Your task to perform on an android device: Show me the alarms in the clock app Image 0: 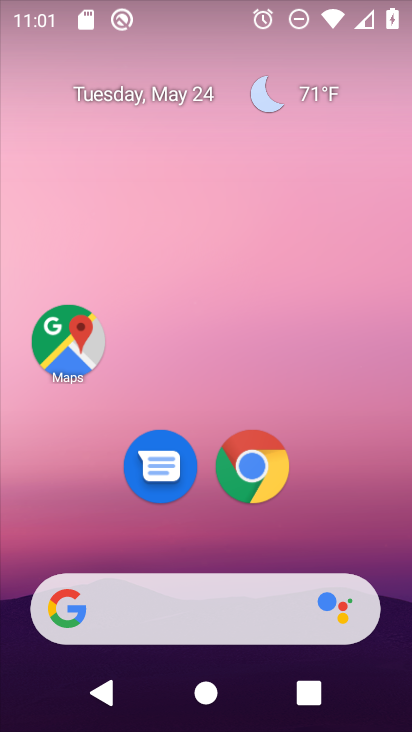
Step 0: drag from (212, 564) to (301, 76)
Your task to perform on an android device: Show me the alarms in the clock app Image 1: 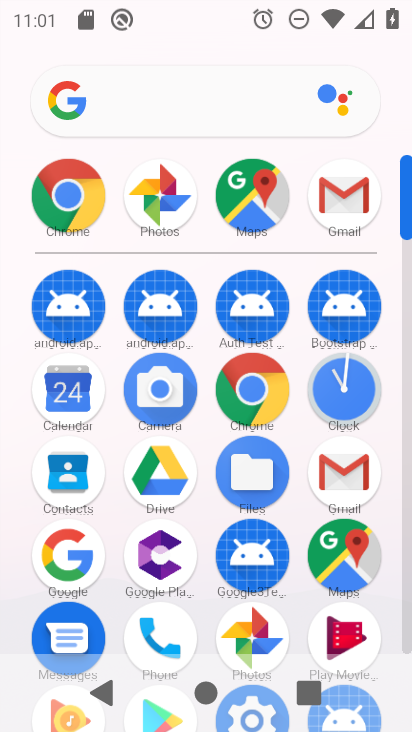
Step 1: click (247, 380)
Your task to perform on an android device: Show me the alarms in the clock app Image 2: 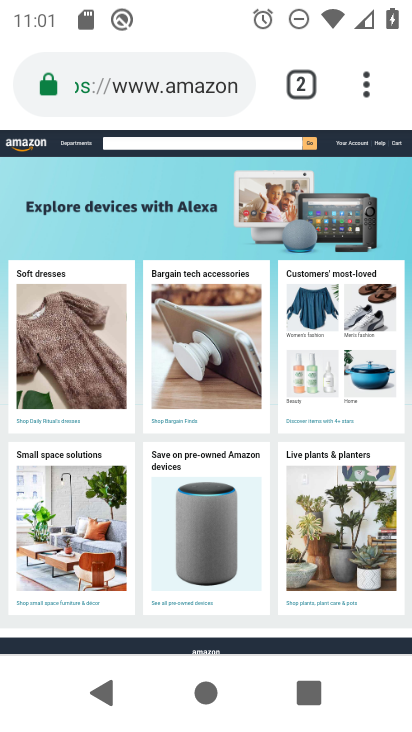
Step 2: press home button
Your task to perform on an android device: Show me the alarms in the clock app Image 3: 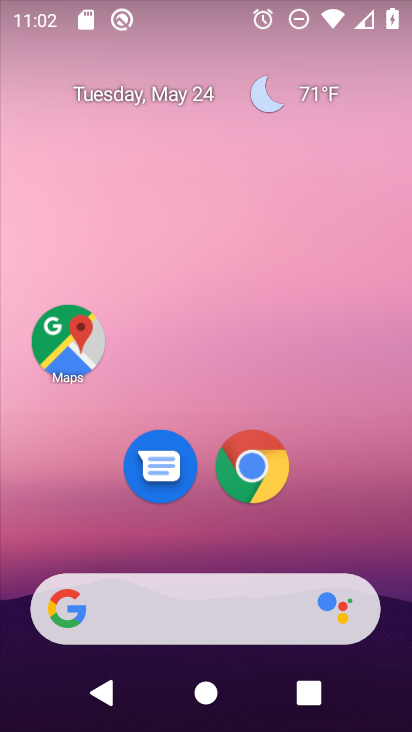
Step 3: click (252, 460)
Your task to perform on an android device: Show me the alarms in the clock app Image 4: 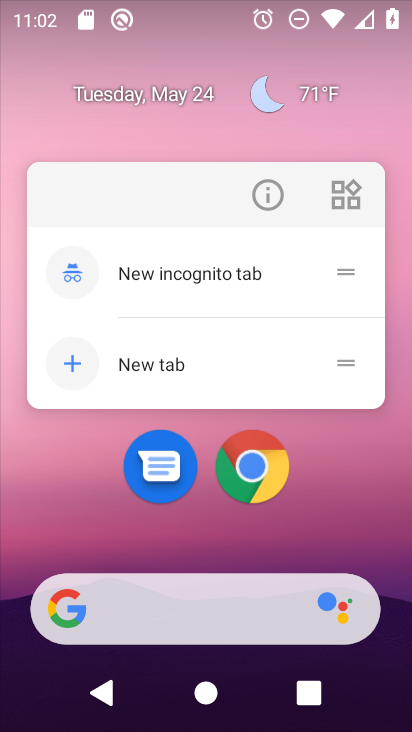
Step 4: click (256, 463)
Your task to perform on an android device: Show me the alarms in the clock app Image 5: 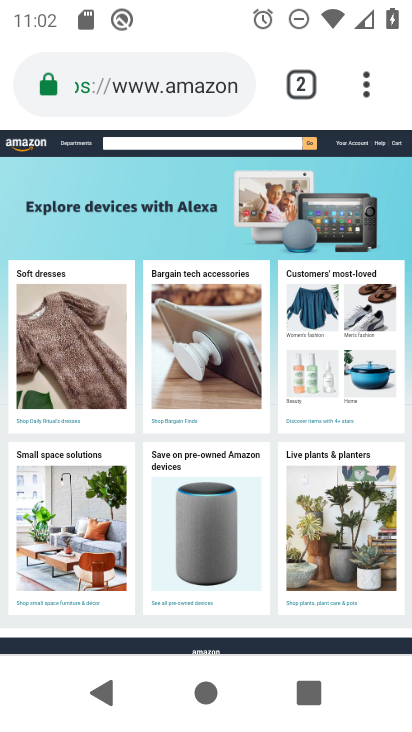
Step 5: click (374, 96)
Your task to perform on an android device: Show me the alarms in the clock app Image 6: 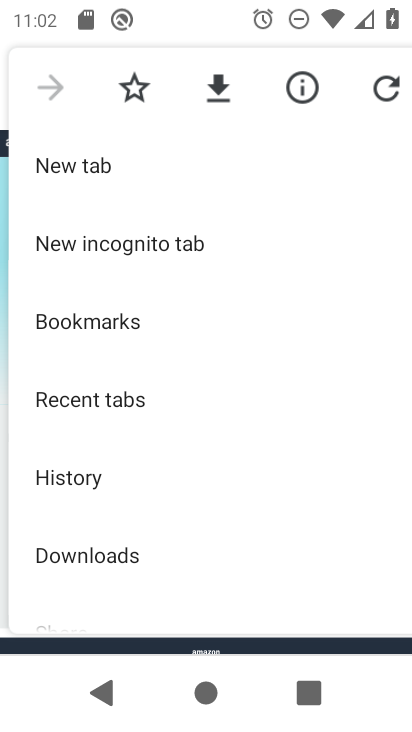
Step 6: drag from (137, 490) to (219, 213)
Your task to perform on an android device: Show me the alarms in the clock app Image 7: 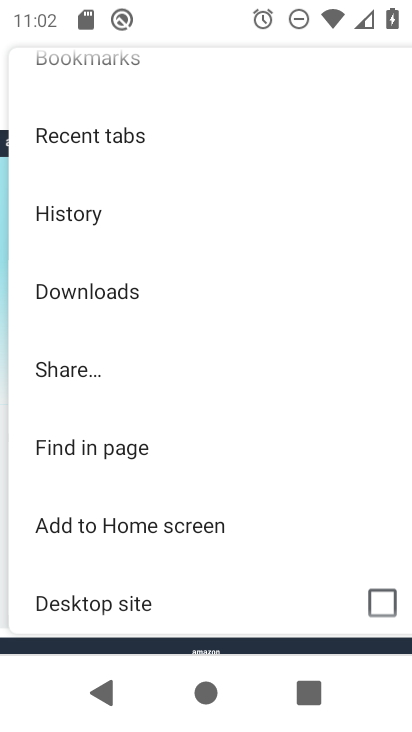
Step 7: drag from (141, 570) to (203, 338)
Your task to perform on an android device: Show me the alarms in the clock app Image 8: 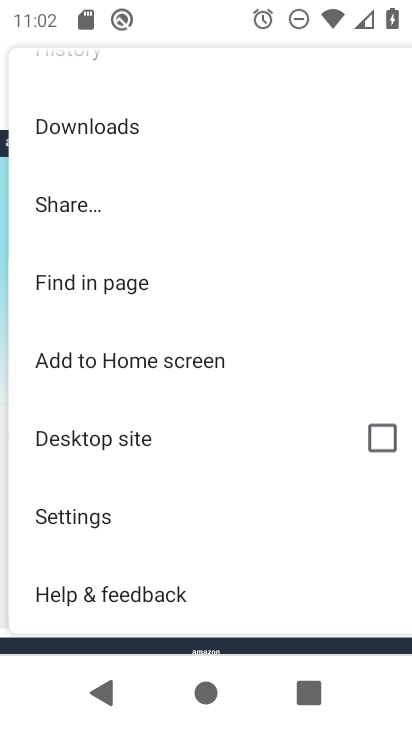
Step 8: press home button
Your task to perform on an android device: Show me the alarms in the clock app Image 9: 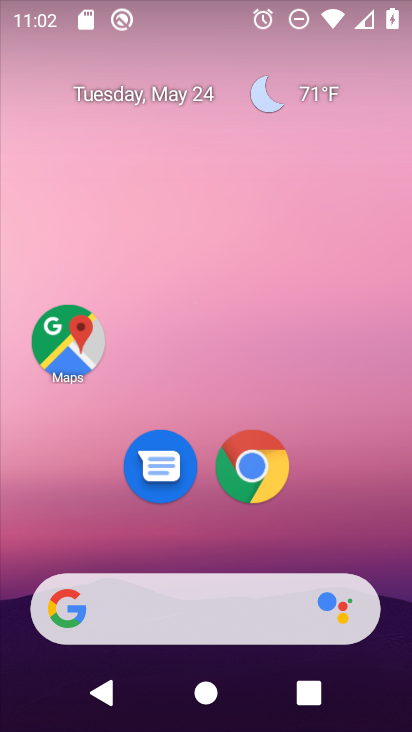
Step 9: drag from (191, 542) to (267, 158)
Your task to perform on an android device: Show me the alarms in the clock app Image 10: 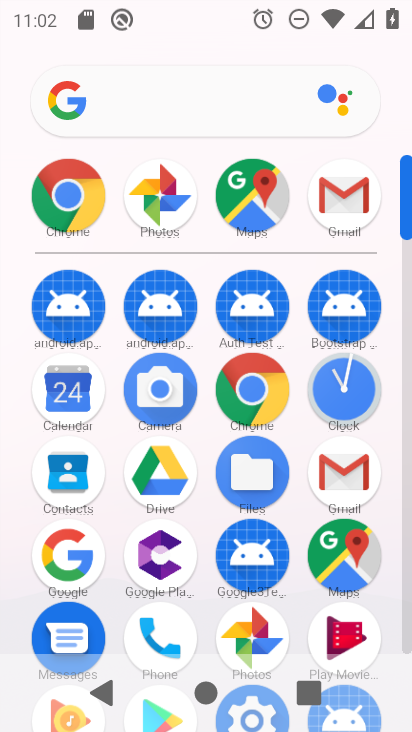
Step 10: click (357, 398)
Your task to perform on an android device: Show me the alarms in the clock app Image 11: 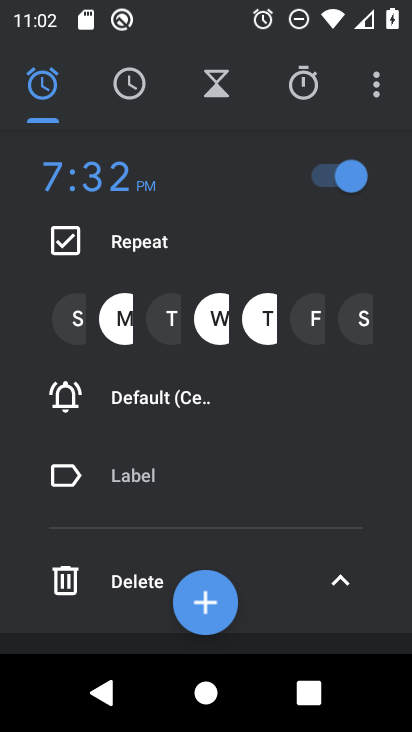
Step 11: click (348, 564)
Your task to perform on an android device: Show me the alarms in the clock app Image 12: 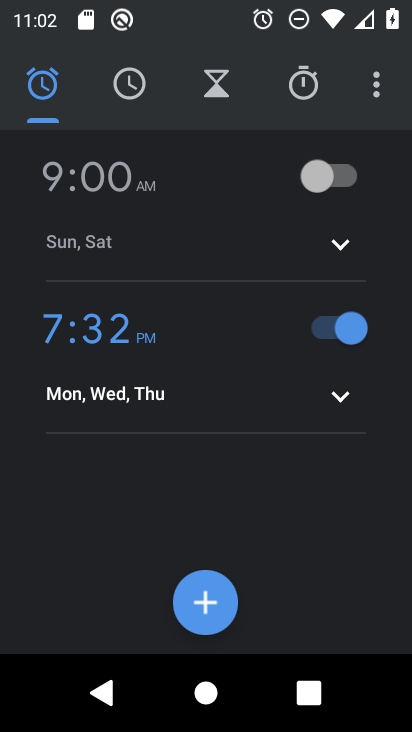
Step 12: task complete